Your task to perform on an android device: turn off translation in the chrome app Image 0: 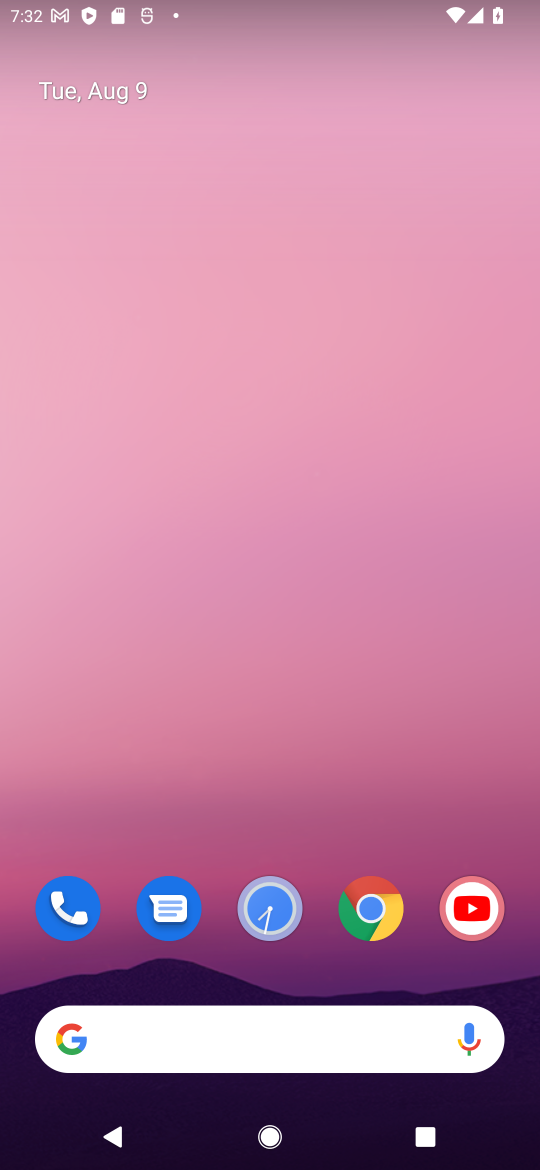
Step 0: click (371, 906)
Your task to perform on an android device: turn off translation in the chrome app Image 1: 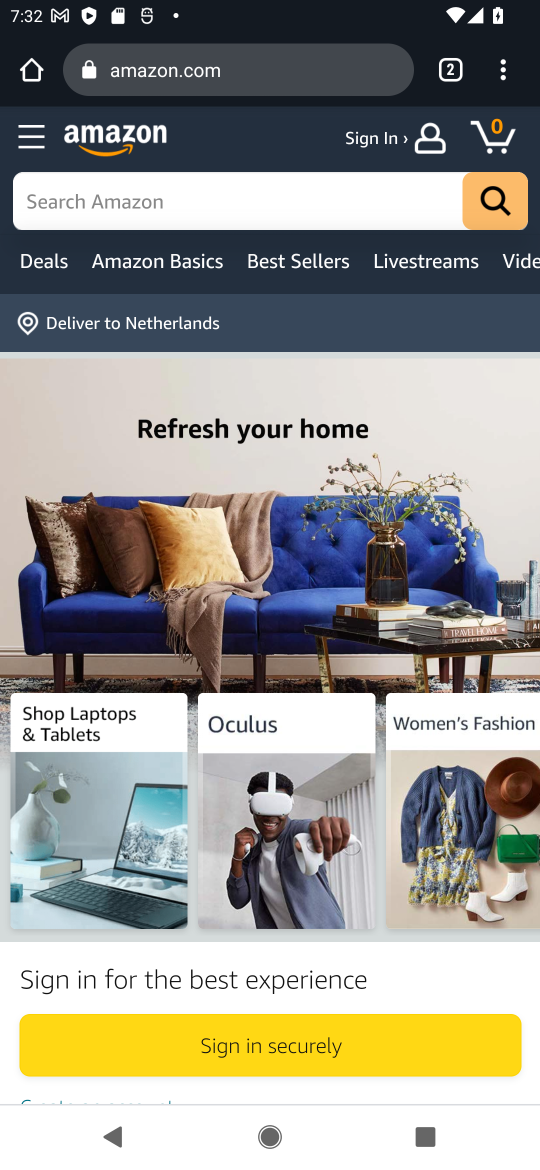
Step 1: click (501, 80)
Your task to perform on an android device: turn off translation in the chrome app Image 2: 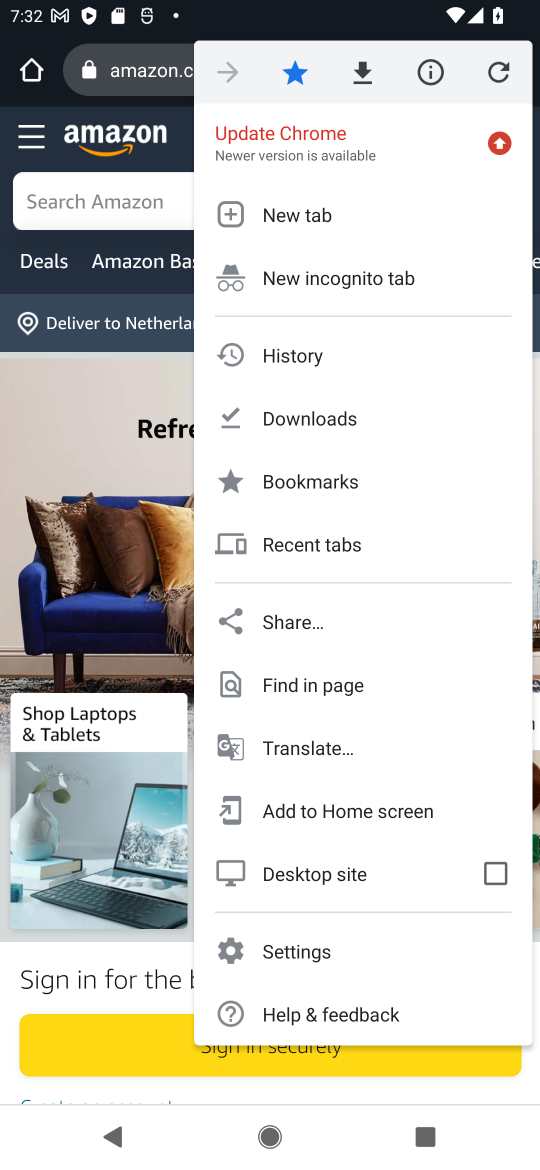
Step 2: click (286, 947)
Your task to perform on an android device: turn off translation in the chrome app Image 3: 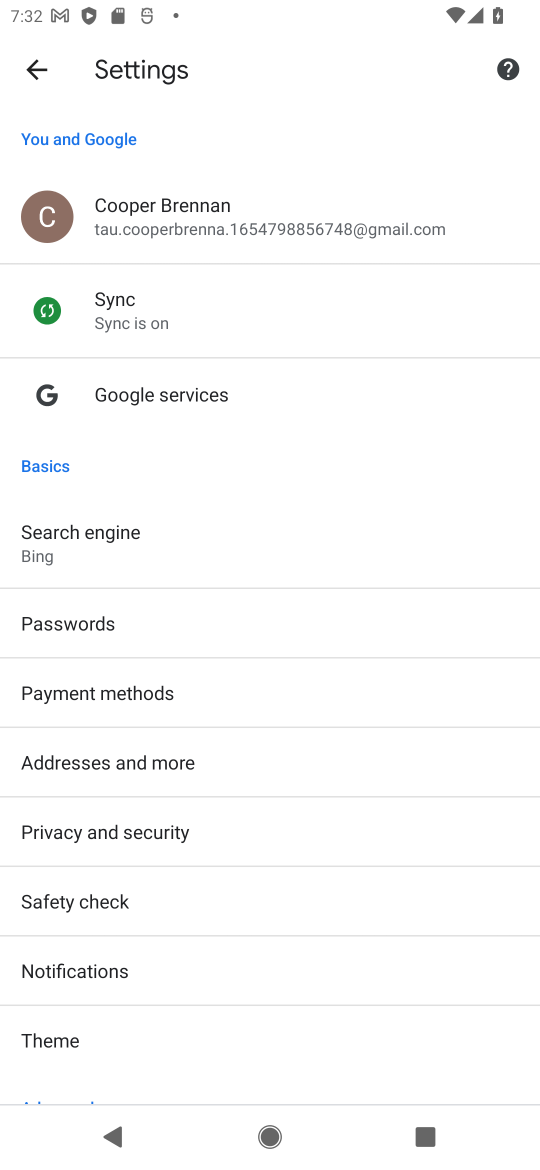
Step 3: drag from (88, 983) to (113, 709)
Your task to perform on an android device: turn off translation in the chrome app Image 4: 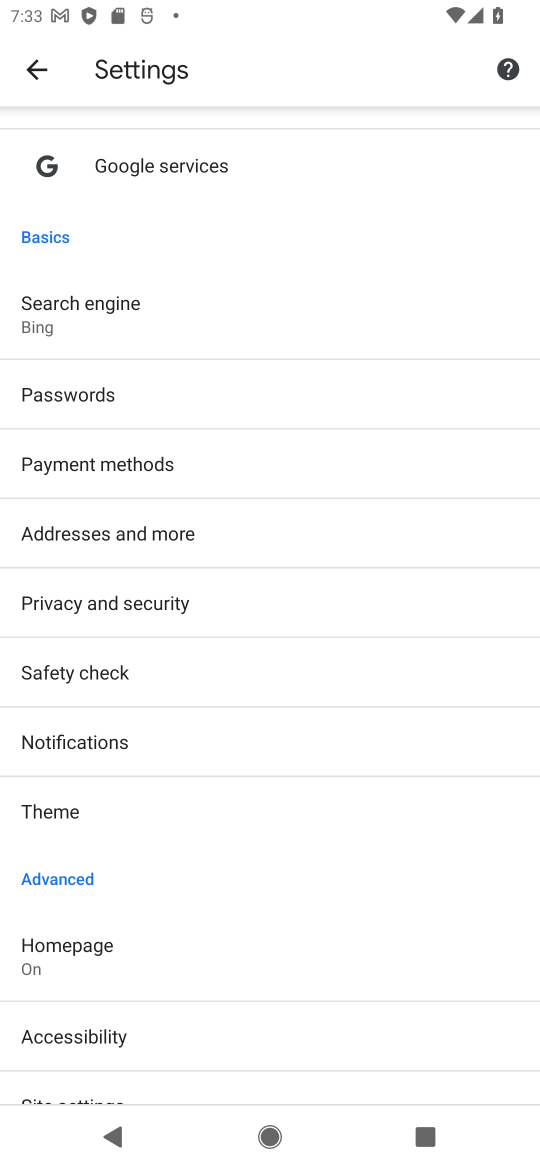
Step 4: drag from (146, 962) to (181, 613)
Your task to perform on an android device: turn off translation in the chrome app Image 5: 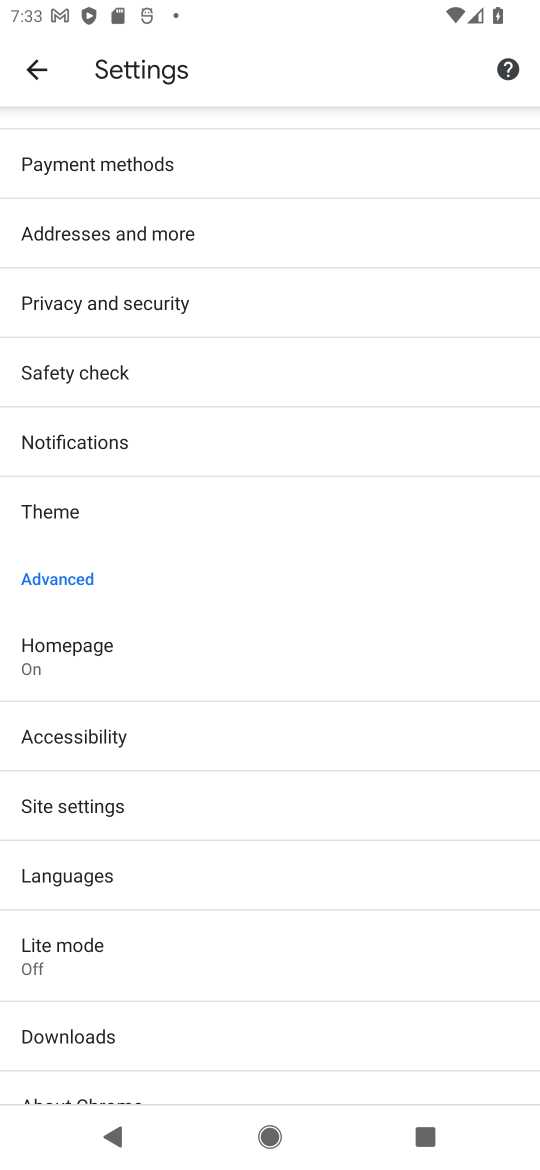
Step 5: click (74, 868)
Your task to perform on an android device: turn off translation in the chrome app Image 6: 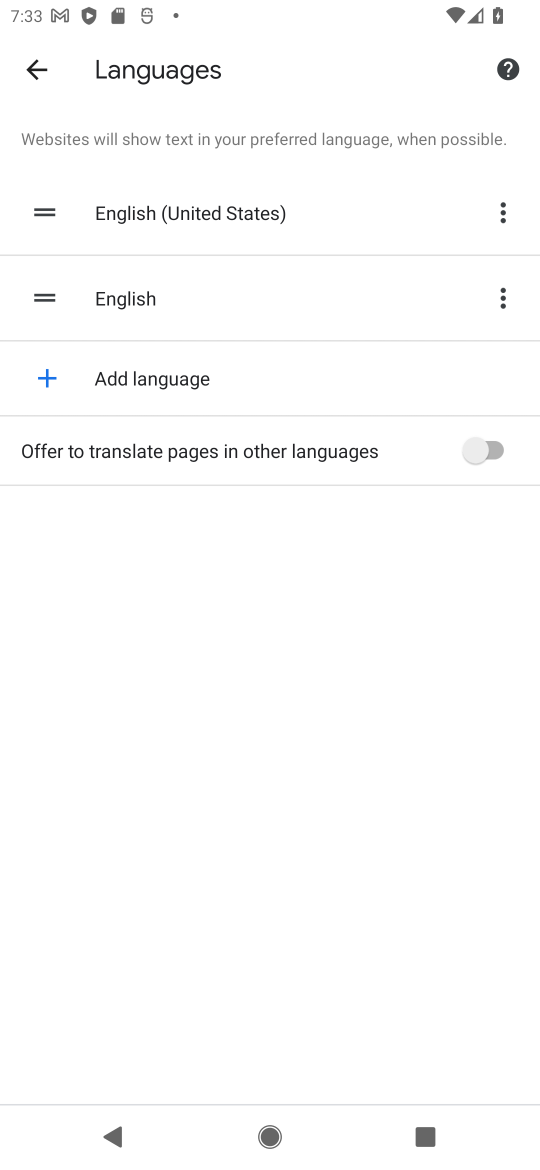
Step 6: task complete